Your task to perform on an android device: Show me popular videos on Youtube Image 0: 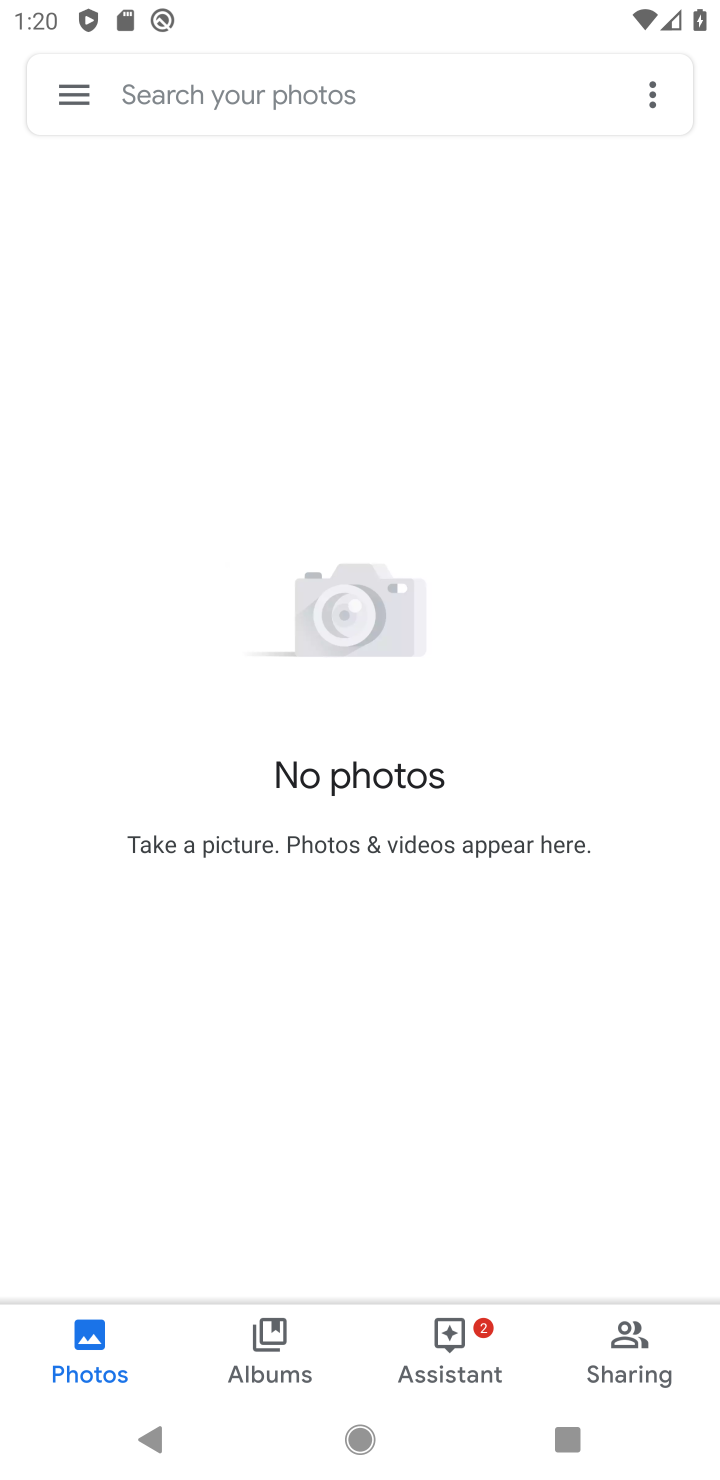
Step 0: press home button
Your task to perform on an android device: Show me popular videos on Youtube Image 1: 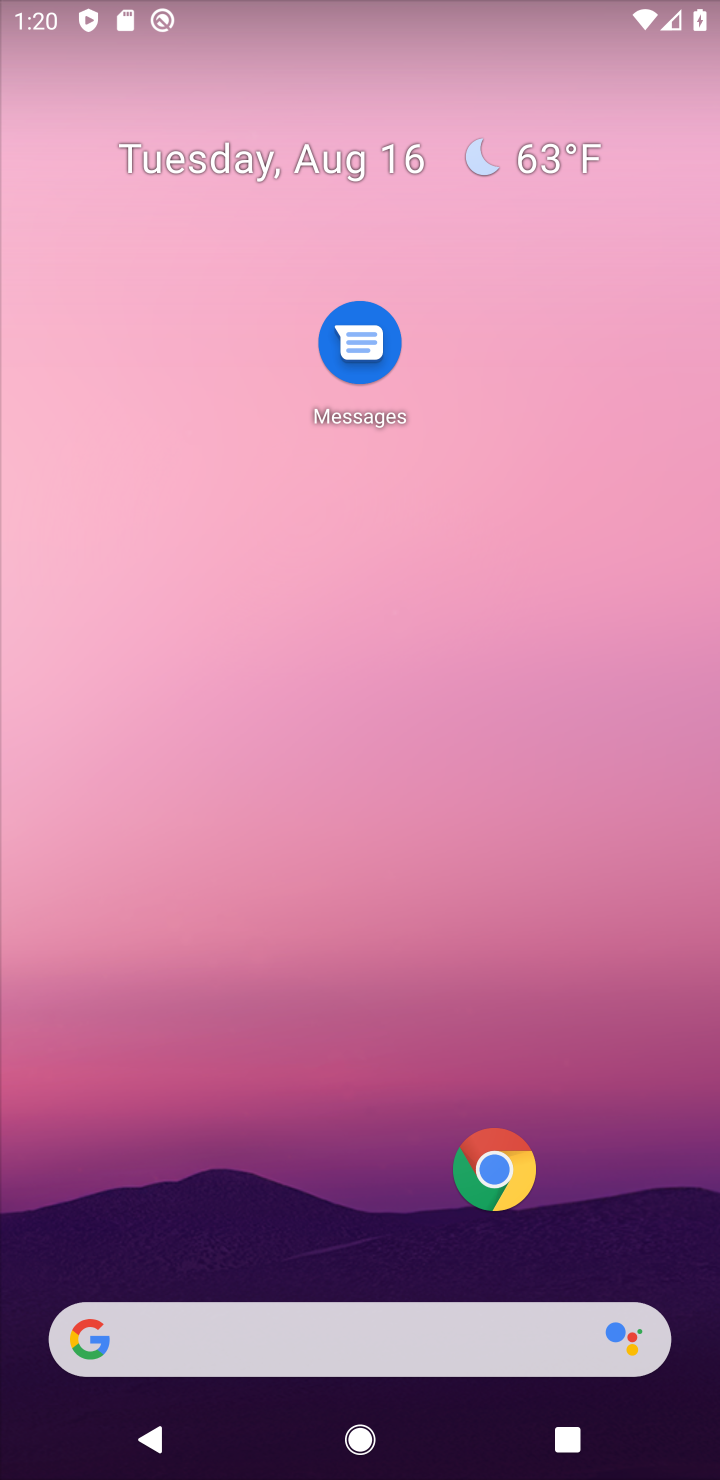
Step 1: drag from (105, 1046) to (308, 5)
Your task to perform on an android device: Show me popular videos on Youtube Image 2: 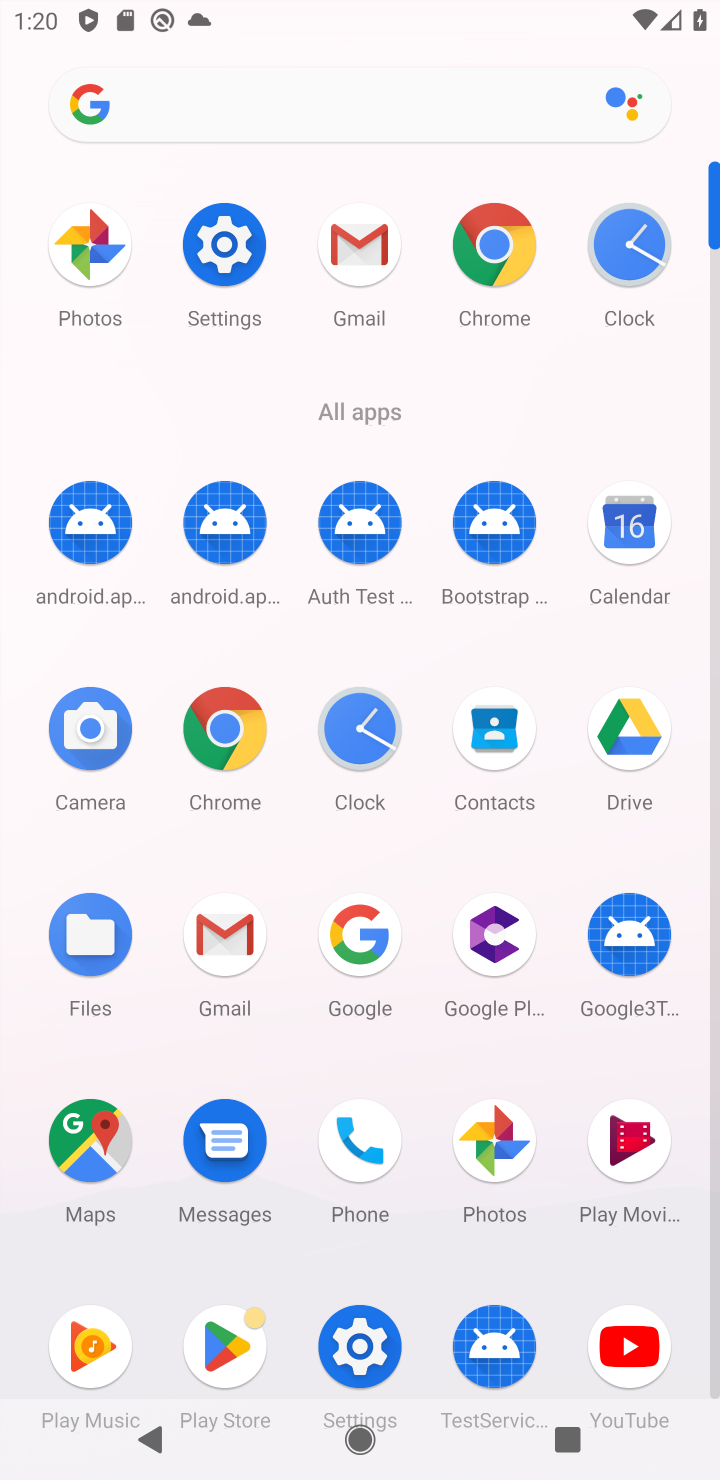
Step 2: click (644, 1362)
Your task to perform on an android device: Show me popular videos on Youtube Image 3: 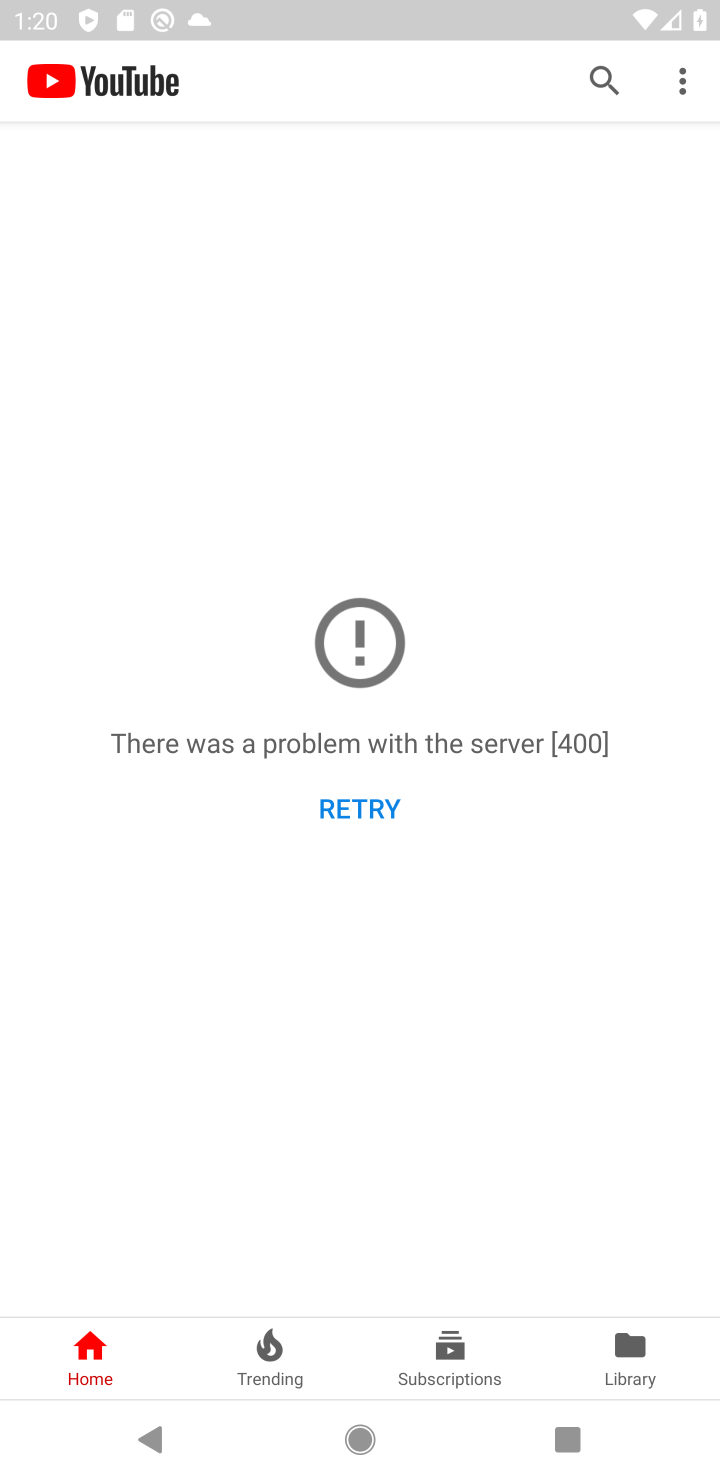
Step 3: click (611, 99)
Your task to perform on an android device: Show me popular videos on Youtube Image 4: 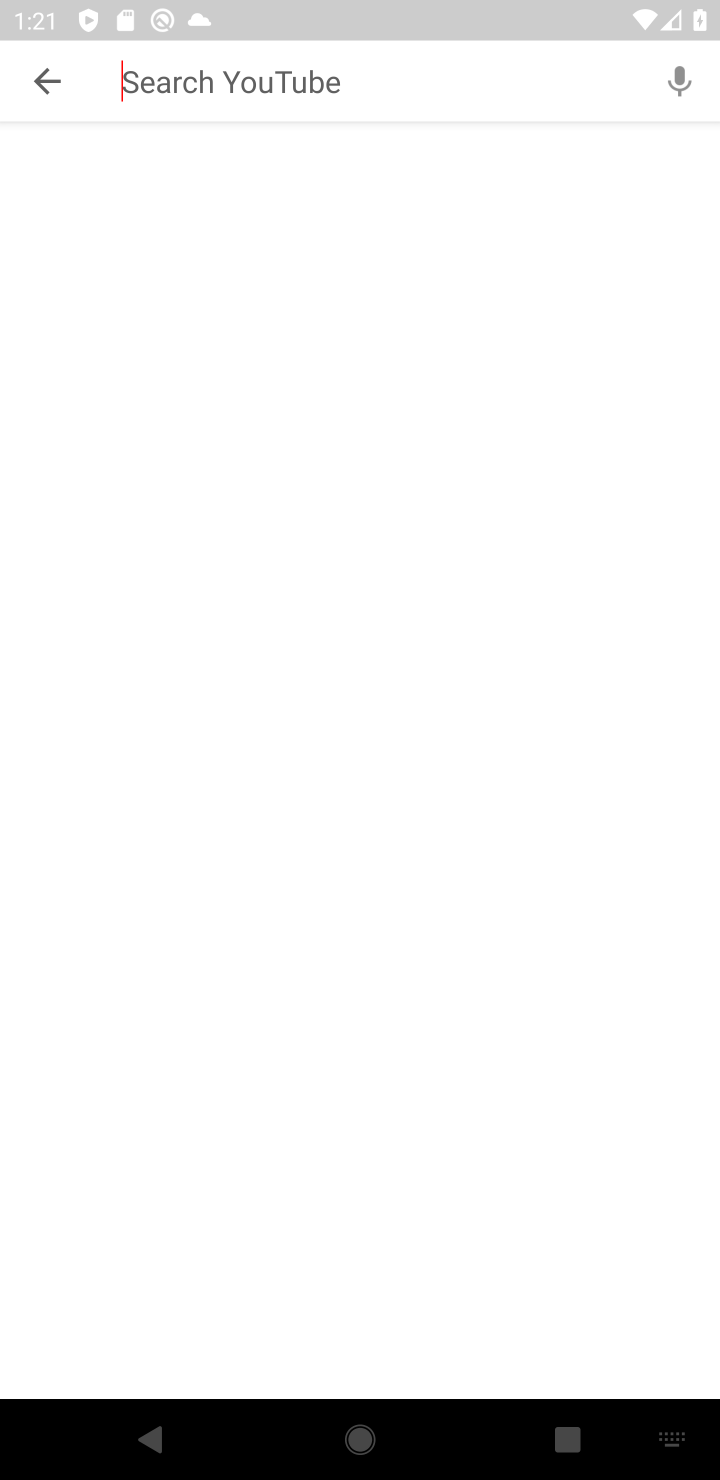
Step 4: type "popular videos on Youtube"
Your task to perform on an android device: Show me popular videos on Youtube Image 5: 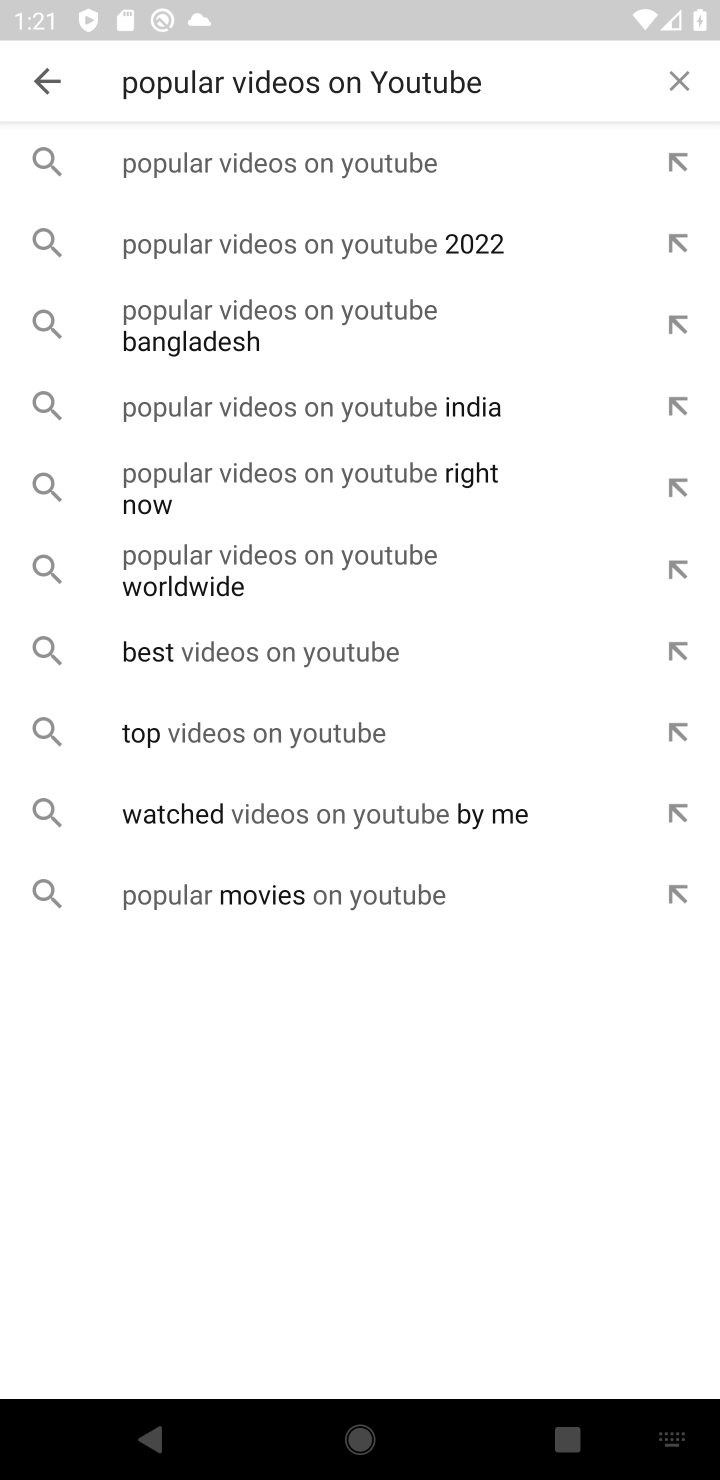
Step 5: click (281, 161)
Your task to perform on an android device: Show me popular videos on Youtube Image 6: 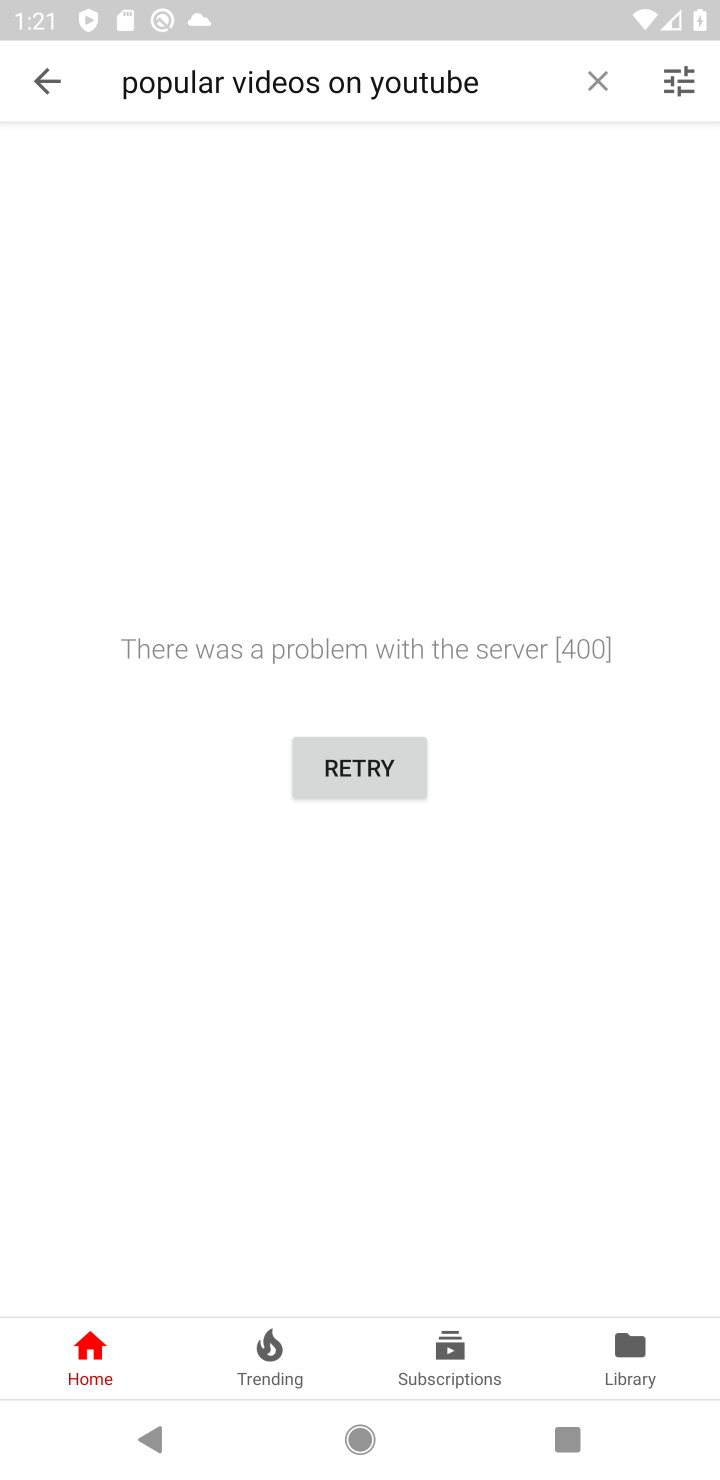
Step 6: task complete